Your task to perform on an android device: Add lenovo thinkpad to the cart on bestbuy Image 0: 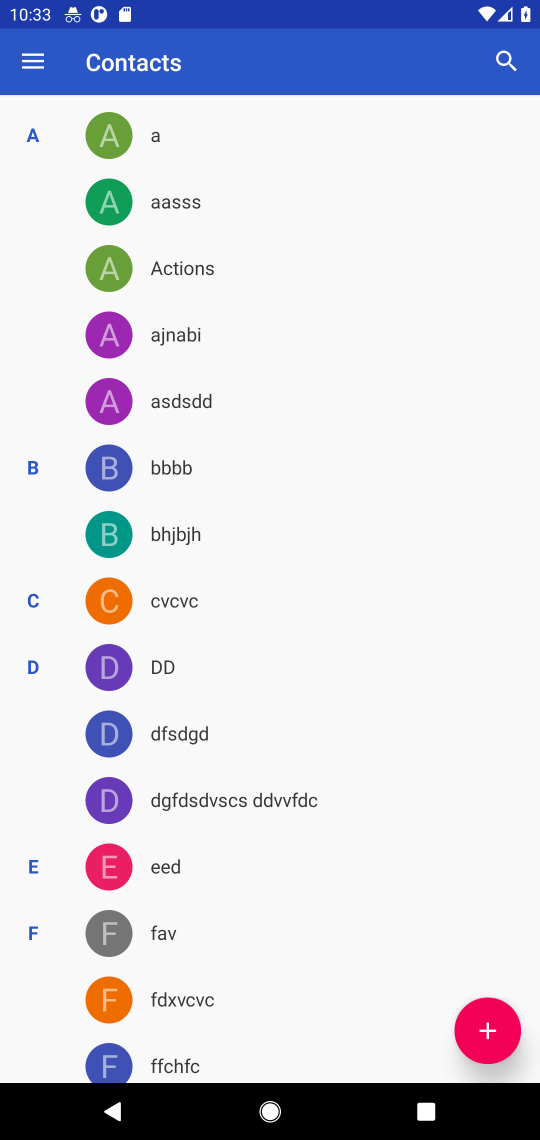
Step 0: press home button
Your task to perform on an android device: Add lenovo thinkpad to the cart on bestbuy Image 1: 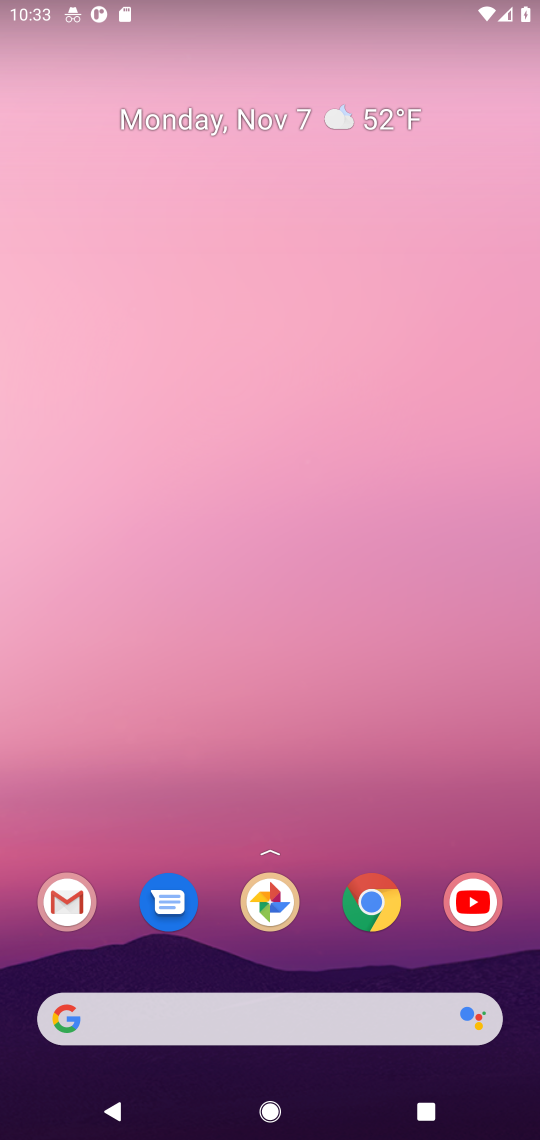
Step 1: click (373, 912)
Your task to perform on an android device: Add lenovo thinkpad to the cart on bestbuy Image 2: 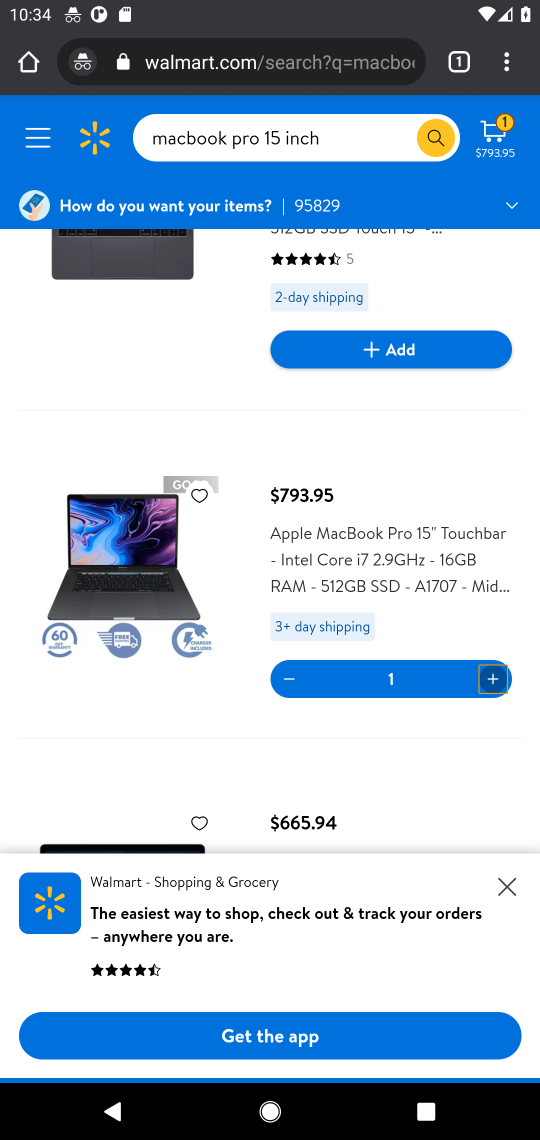
Step 2: click (206, 63)
Your task to perform on an android device: Add lenovo thinkpad to the cart on bestbuy Image 3: 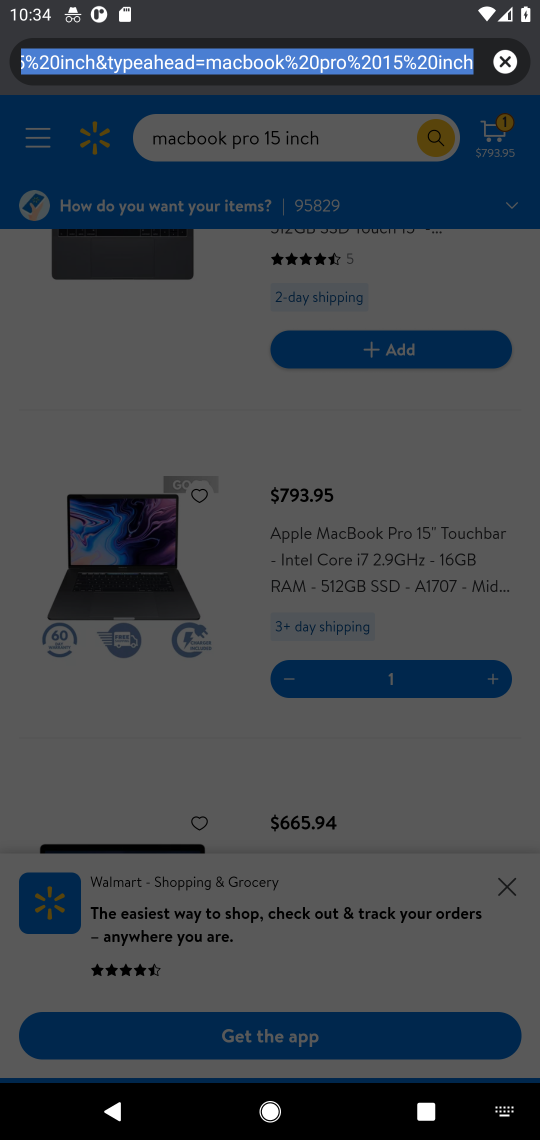
Step 3: type "bestbuy.com"
Your task to perform on an android device: Add lenovo thinkpad to the cart on bestbuy Image 4: 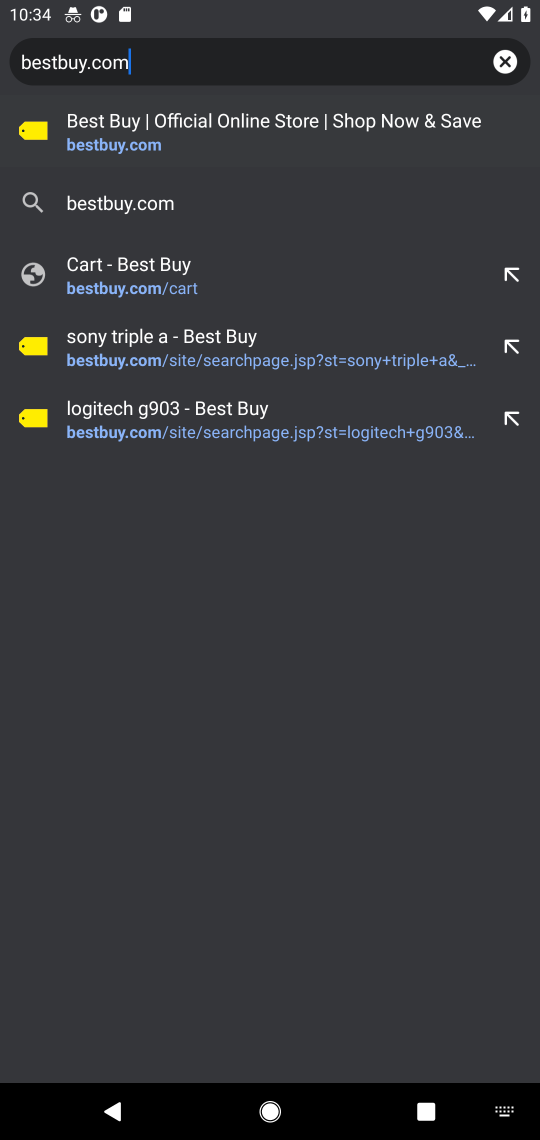
Step 4: click (102, 168)
Your task to perform on an android device: Add lenovo thinkpad to the cart on bestbuy Image 5: 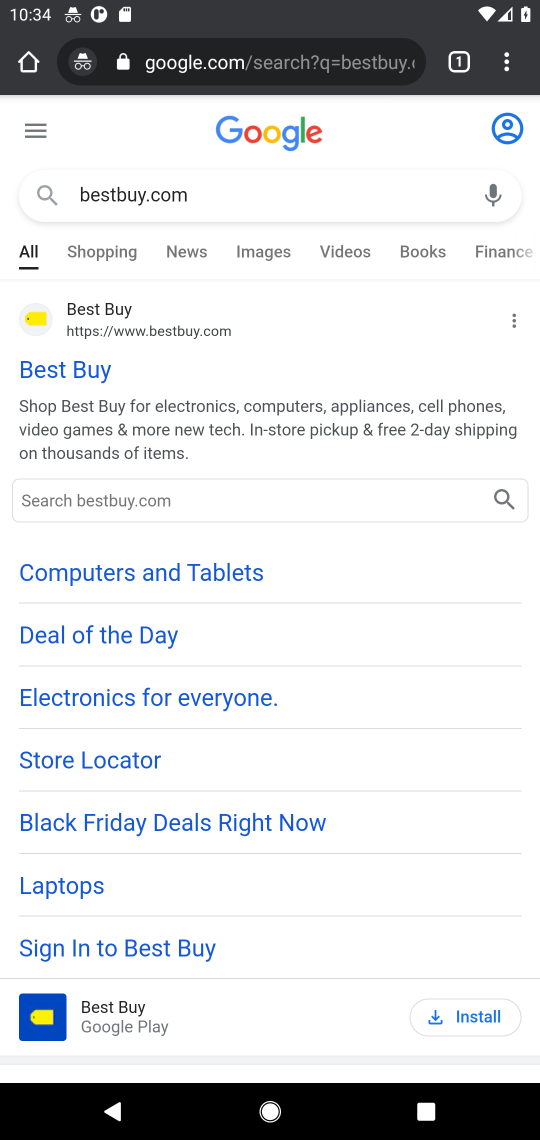
Step 5: click (39, 366)
Your task to perform on an android device: Add lenovo thinkpad to the cart on bestbuy Image 6: 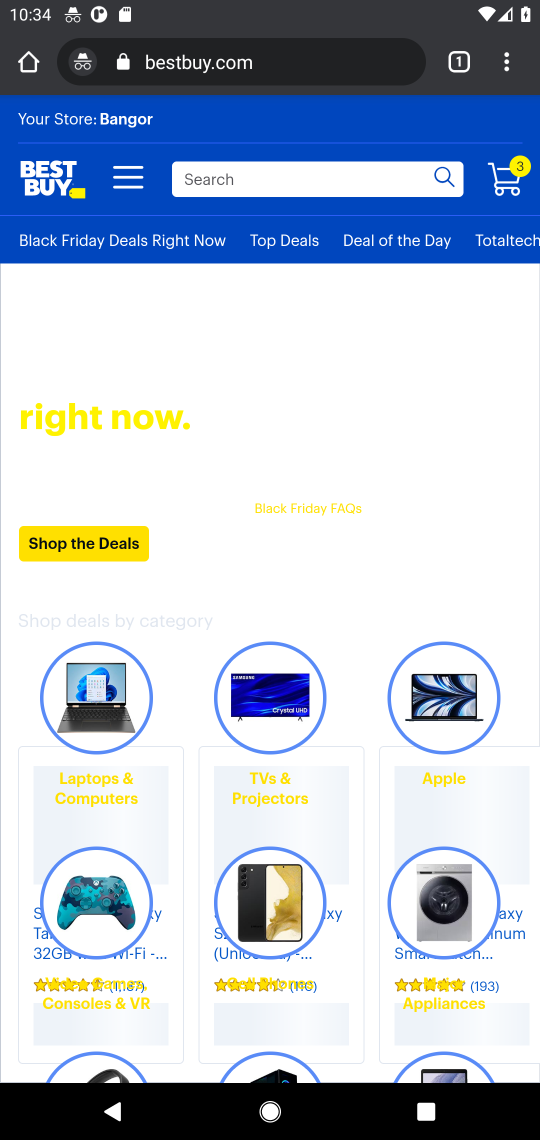
Step 6: click (291, 184)
Your task to perform on an android device: Add lenovo thinkpad to the cart on bestbuy Image 7: 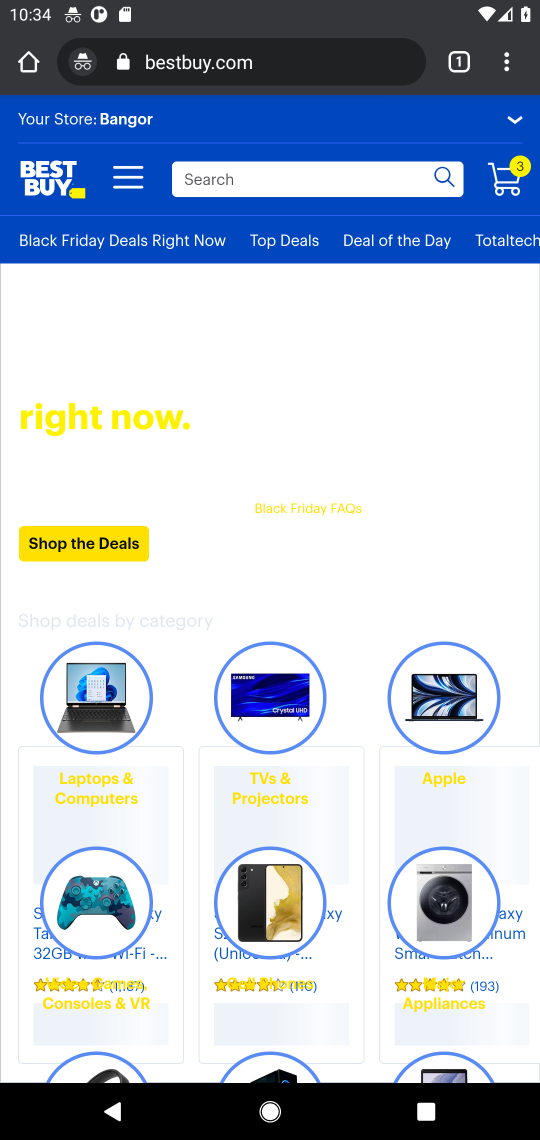
Step 7: type "lenovo thinkpad"
Your task to perform on an android device: Add lenovo thinkpad to the cart on bestbuy Image 8: 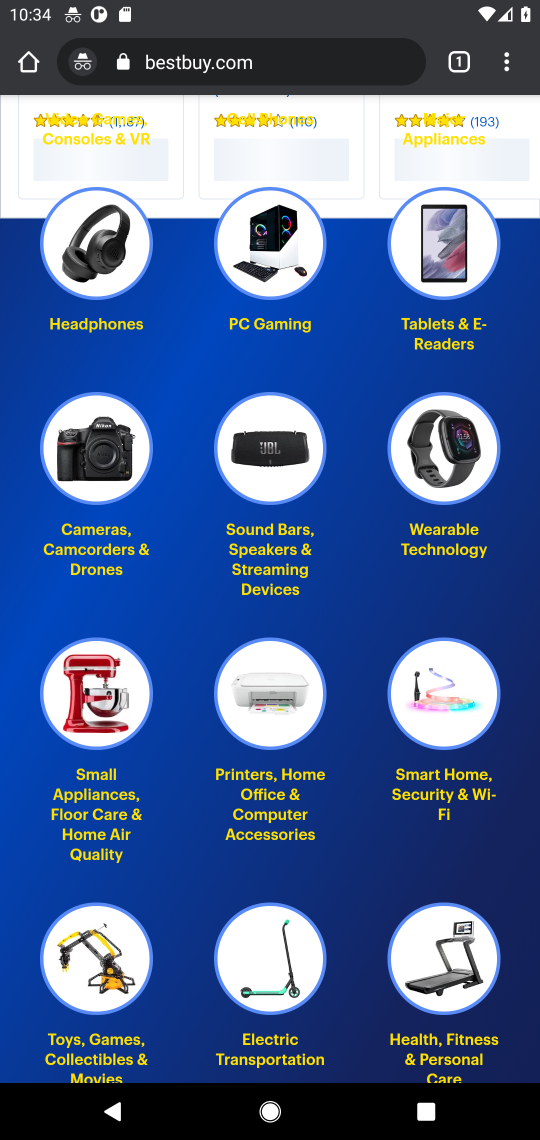
Step 8: drag from (189, 309) to (189, 726)
Your task to perform on an android device: Add lenovo thinkpad to the cart on bestbuy Image 9: 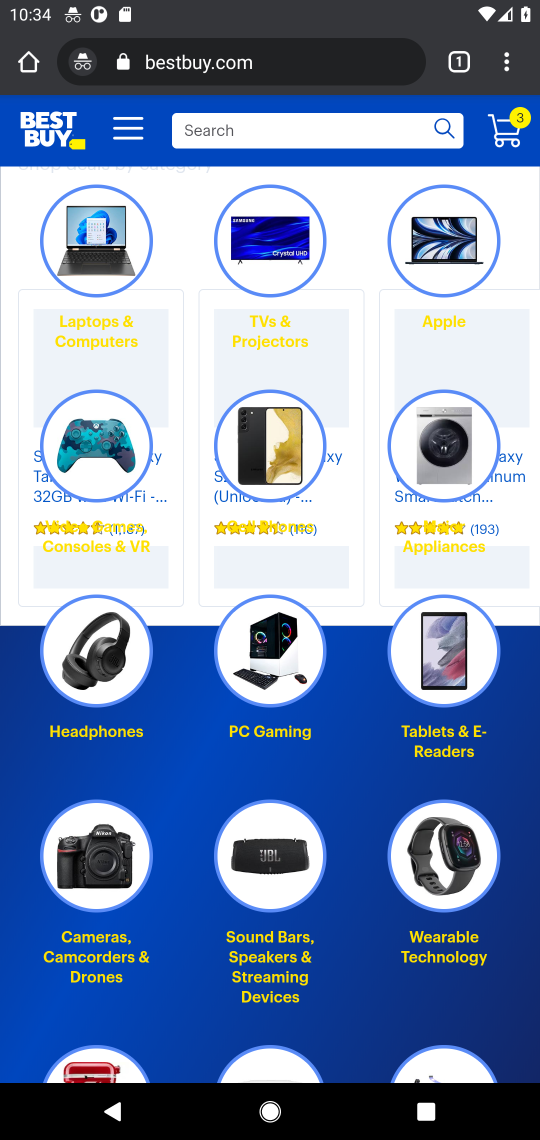
Step 9: click (248, 130)
Your task to perform on an android device: Add lenovo thinkpad to the cart on bestbuy Image 10: 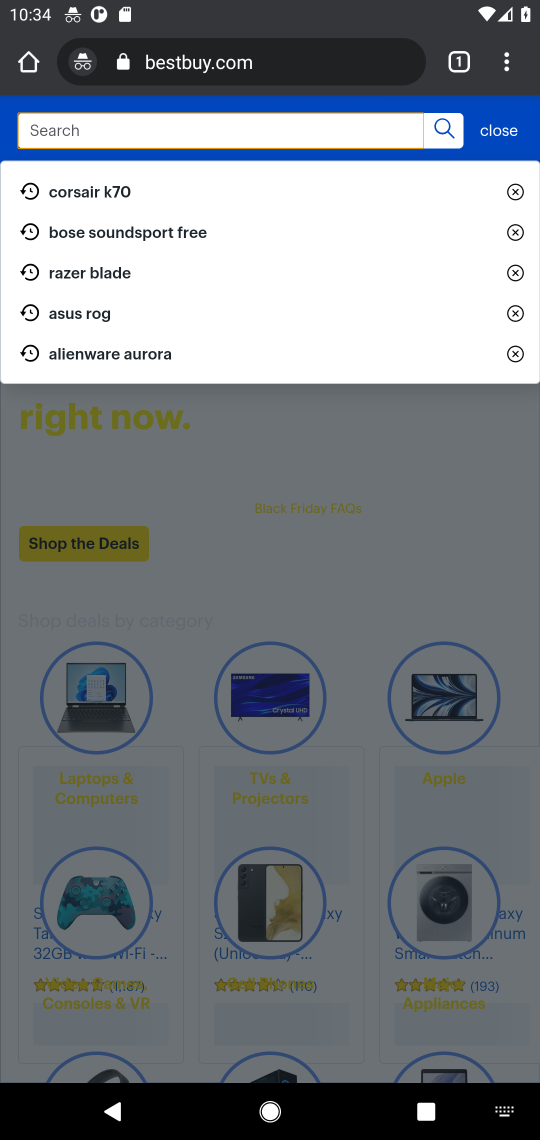
Step 10: type "lenovo thinkpad"
Your task to perform on an android device: Add lenovo thinkpad to the cart on bestbuy Image 11: 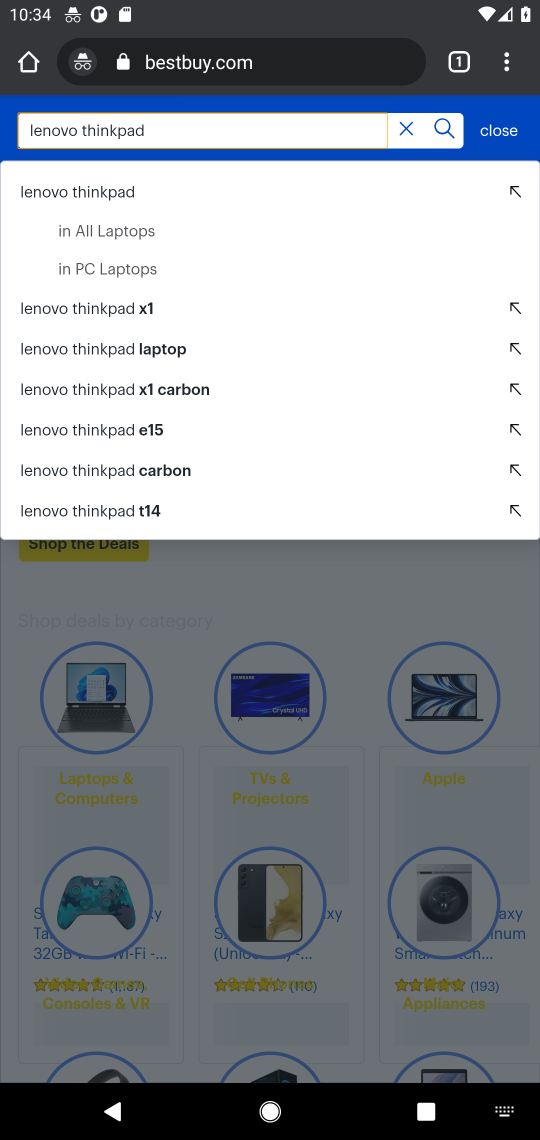
Step 11: click (62, 196)
Your task to perform on an android device: Add lenovo thinkpad to the cart on bestbuy Image 12: 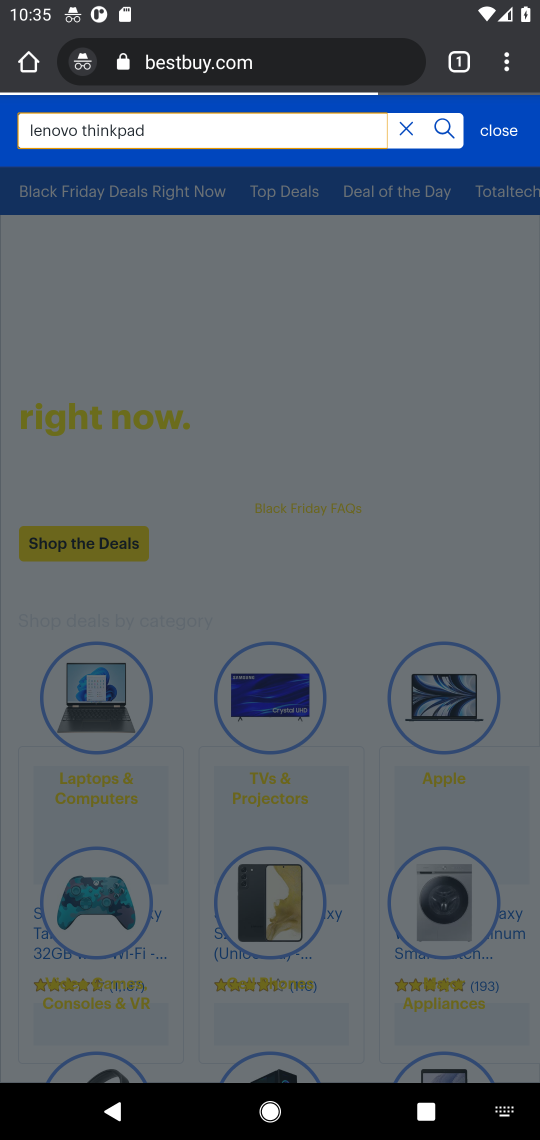
Step 12: click (446, 131)
Your task to perform on an android device: Add lenovo thinkpad to the cart on bestbuy Image 13: 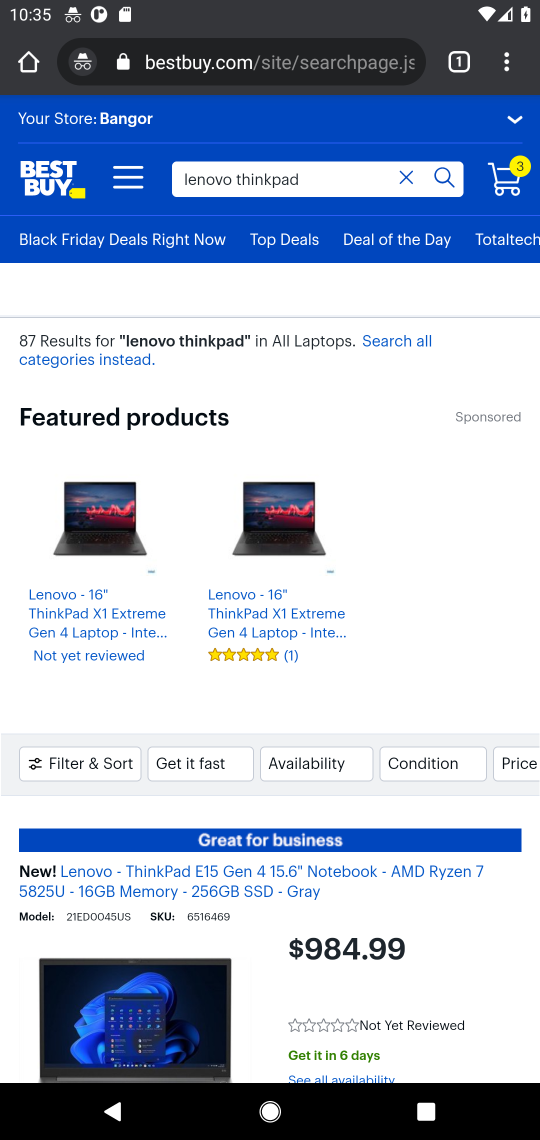
Step 13: drag from (158, 994) to (194, 691)
Your task to perform on an android device: Add lenovo thinkpad to the cart on bestbuy Image 14: 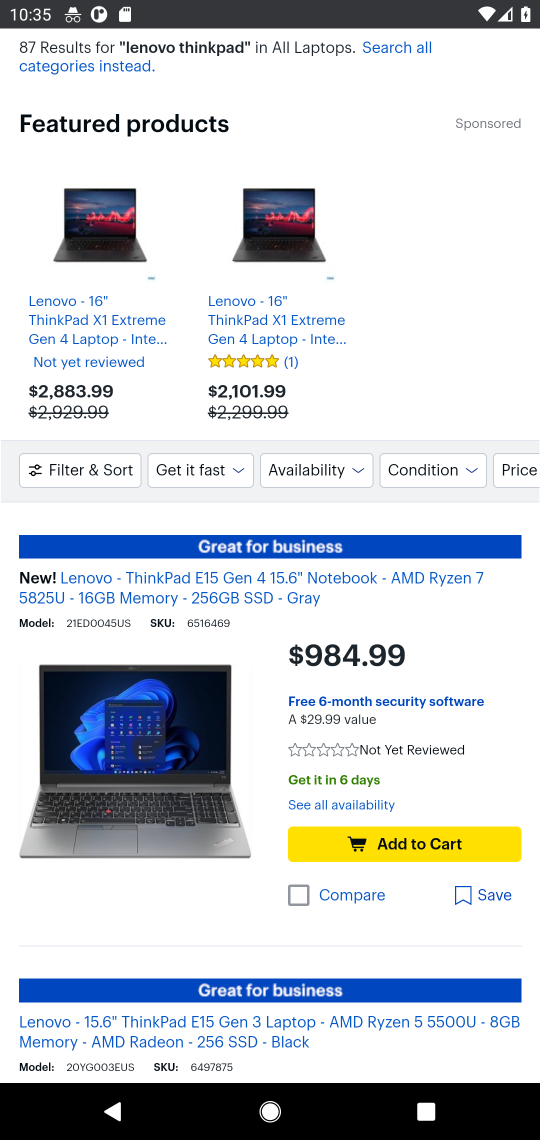
Step 14: click (393, 841)
Your task to perform on an android device: Add lenovo thinkpad to the cart on bestbuy Image 15: 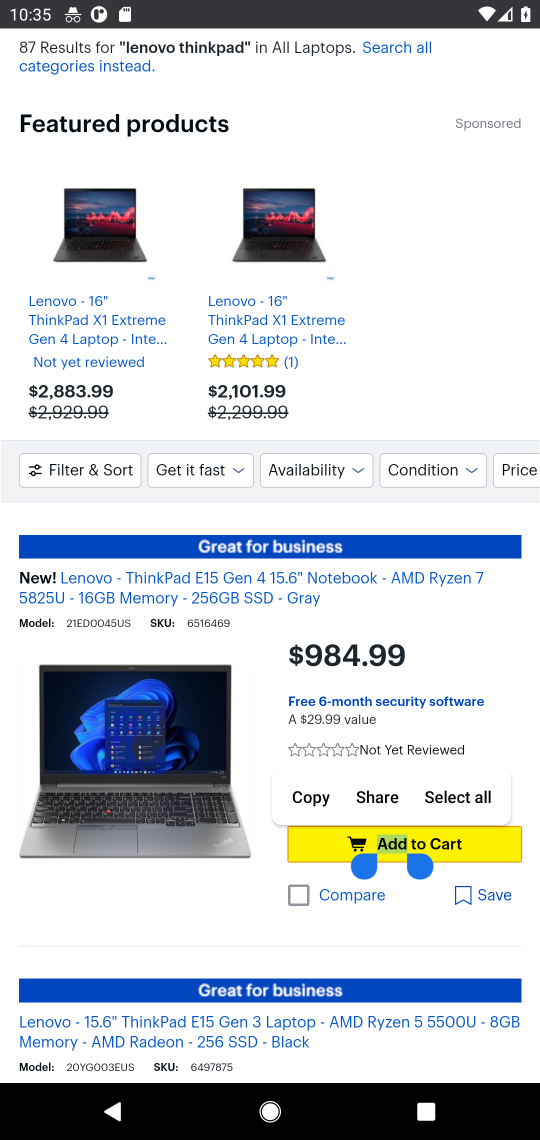
Step 15: click (444, 850)
Your task to perform on an android device: Add lenovo thinkpad to the cart on bestbuy Image 16: 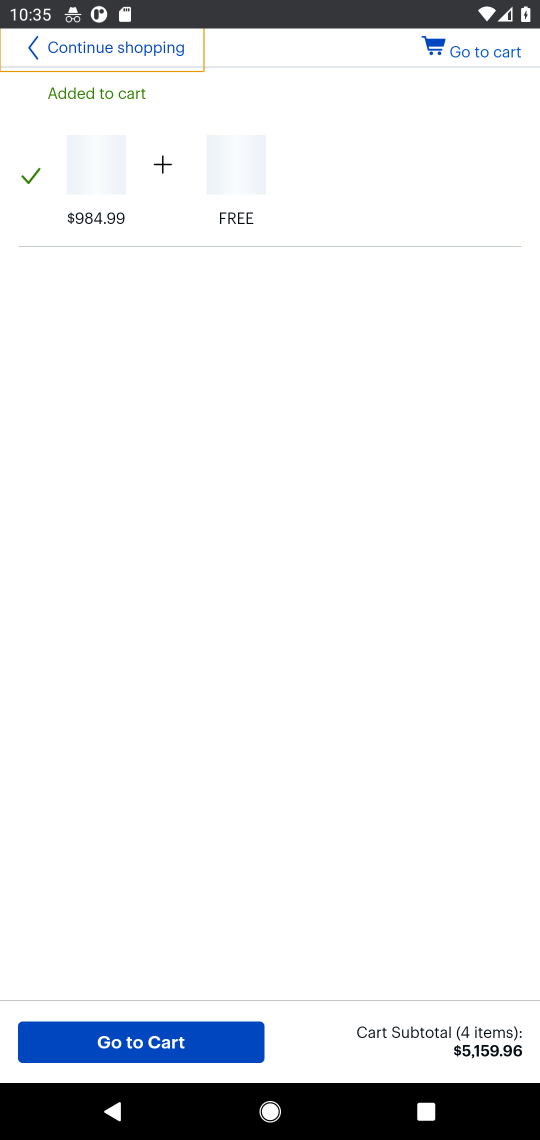
Step 16: task complete